Your task to perform on an android device: Toggle the flashlight Image 0: 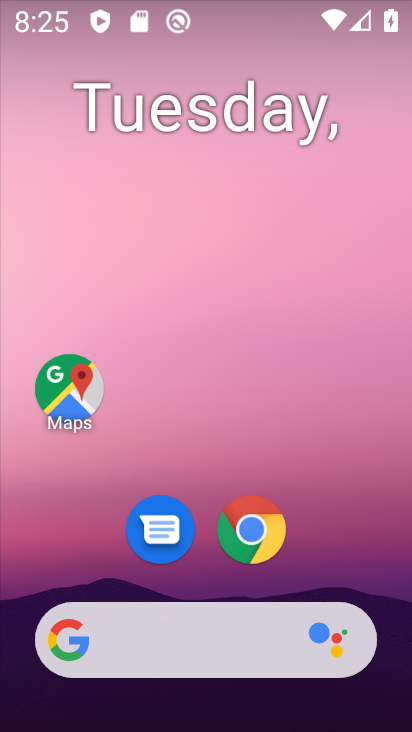
Step 0: drag from (197, 577) to (214, 98)
Your task to perform on an android device: Toggle the flashlight Image 1: 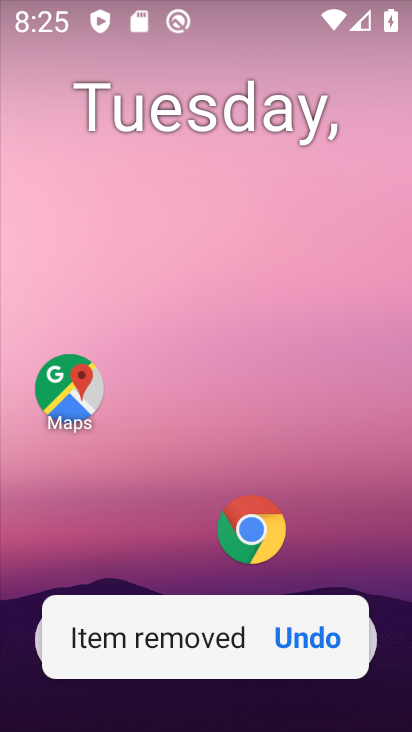
Step 1: press home button
Your task to perform on an android device: Toggle the flashlight Image 2: 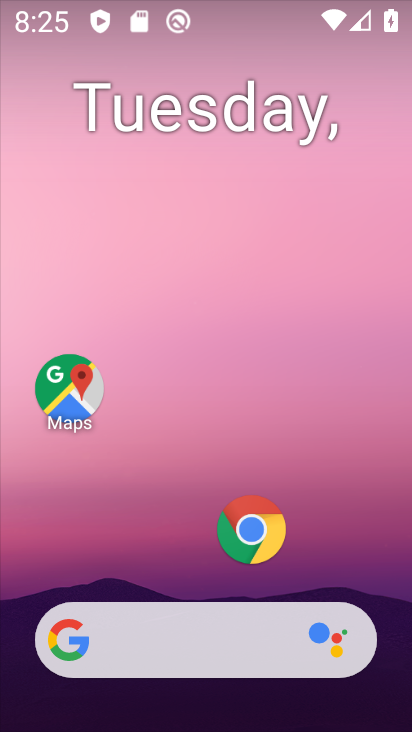
Step 2: drag from (322, 571) to (337, 34)
Your task to perform on an android device: Toggle the flashlight Image 3: 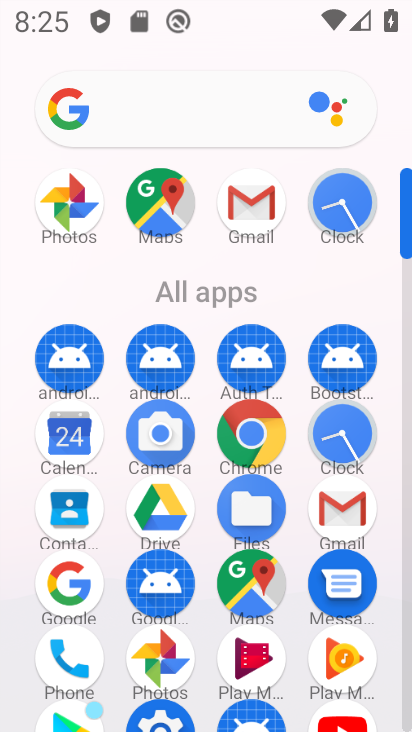
Step 3: drag from (207, 622) to (227, 163)
Your task to perform on an android device: Toggle the flashlight Image 4: 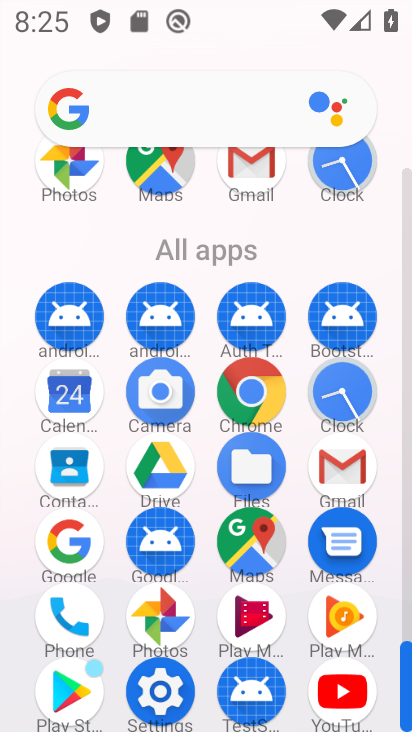
Step 4: click (156, 686)
Your task to perform on an android device: Toggle the flashlight Image 5: 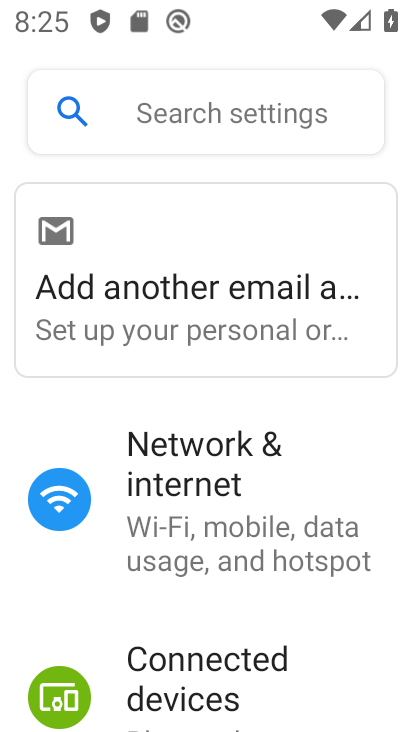
Step 5: click (184, 101)
Your task to perform on an android device: Toggle the flashlight Image 6: 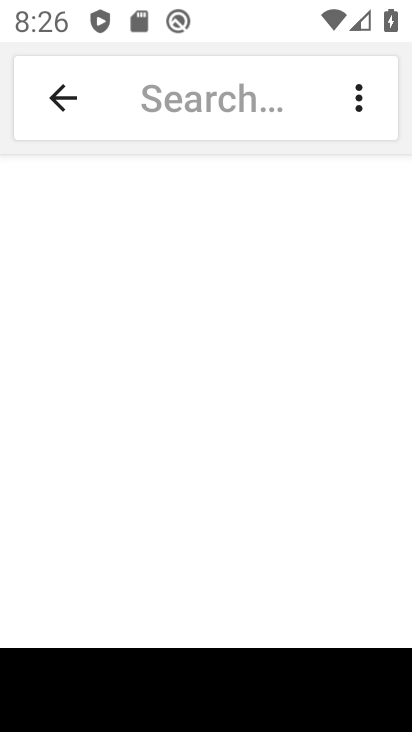
Step 6: type "flashlight"
Your task to perform on an android device: Toggle the flashlight Image 7: 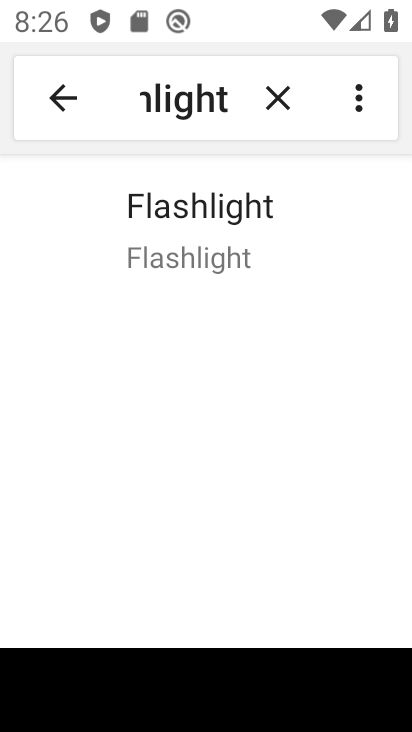
Step 7: click (188, 205)
Your task to perform on an android device: Toggle the flashlight Image 8: 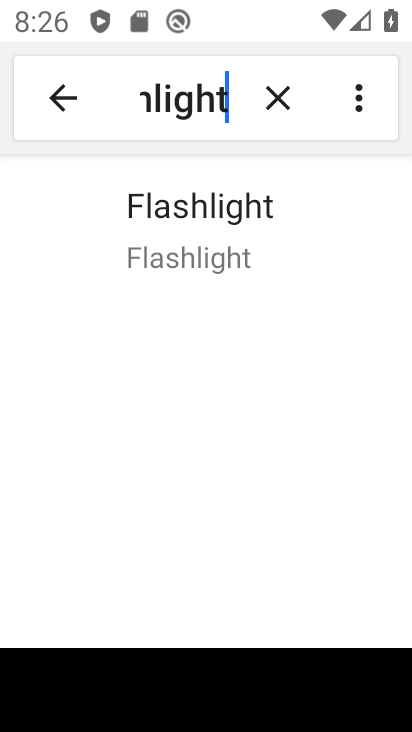
Step 8: click (190, 244)
Your task to perform on an android device: Toggle the flashlight Image 9: 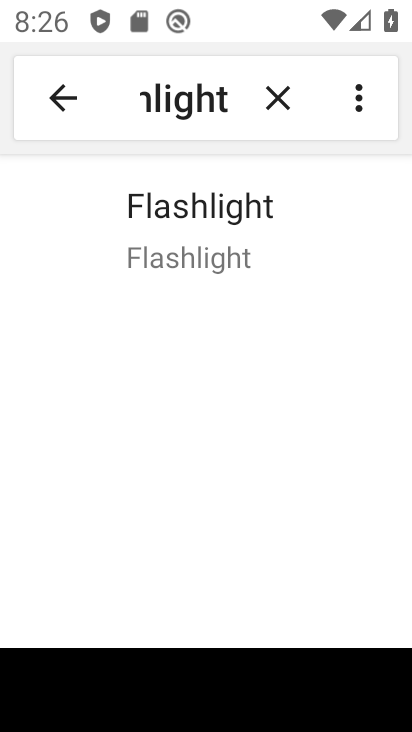
Step 9: task complete